Your task to perform on an android device: Look up the best rated bike on Walmart Image 0: 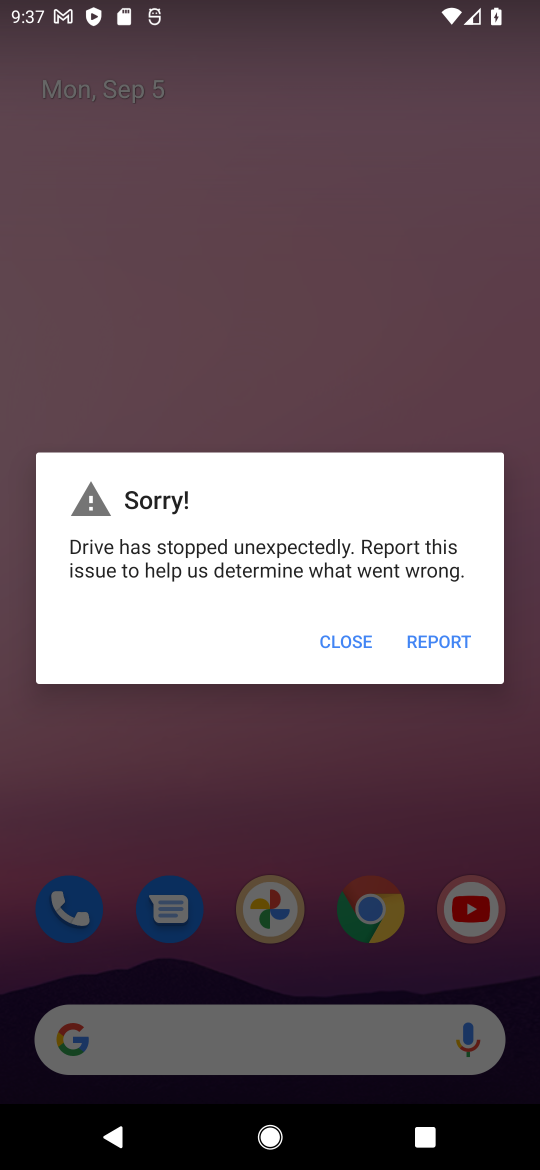
Step 0: click (344, 639)
Your task to perform on an android device: Look up the best rated bike on Walmart Image 1: 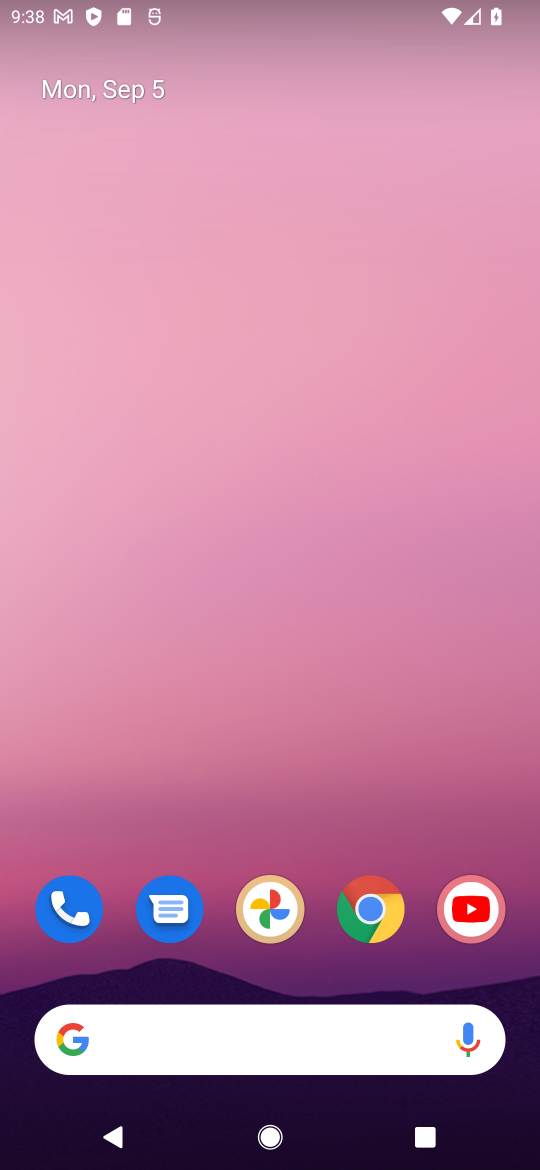
Step 1: click (373, 906)
Your task to perform on an android device: Look up the best rated bike on Walmart Image 2: 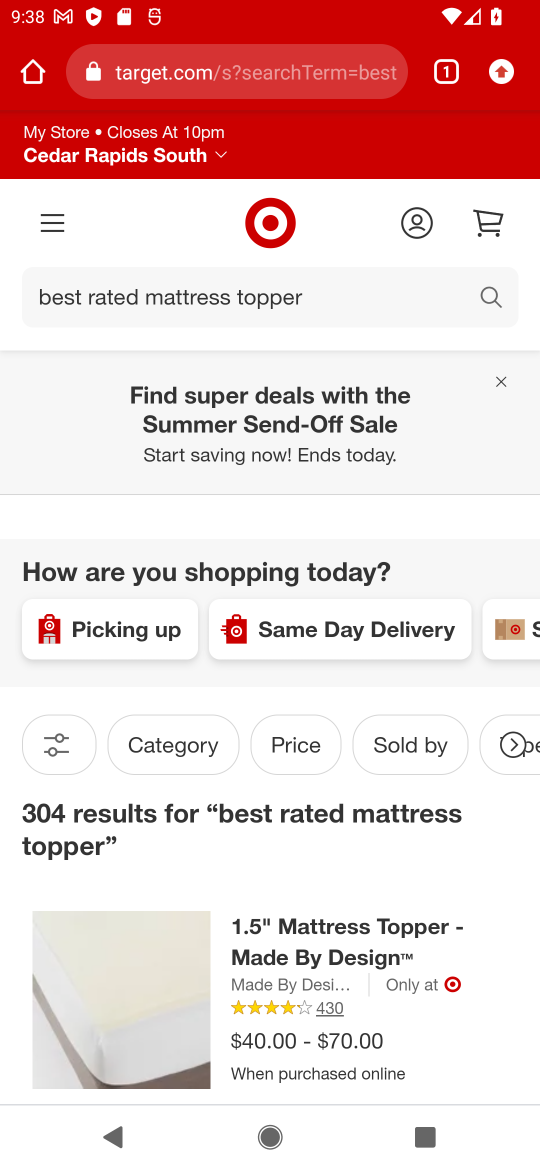
Step 2: click (281, 62)
Your task to perform on an android device: Look up the best rated bike on Walmart Image 3: 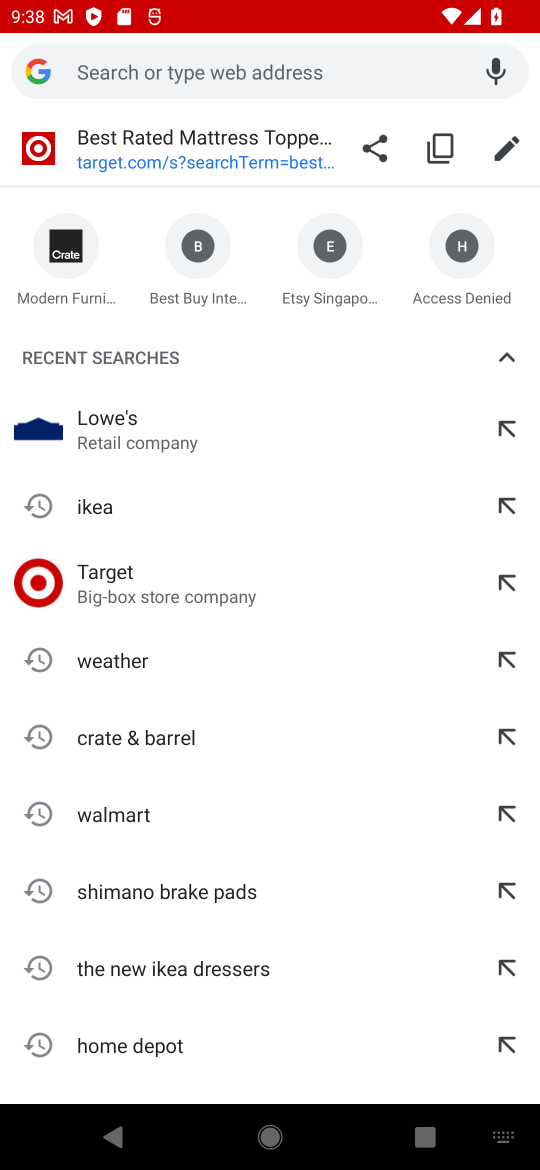
Step 3: type "walmart"
Your task to perform on an android device: Look up the best rated bike on Walmart Image 4: 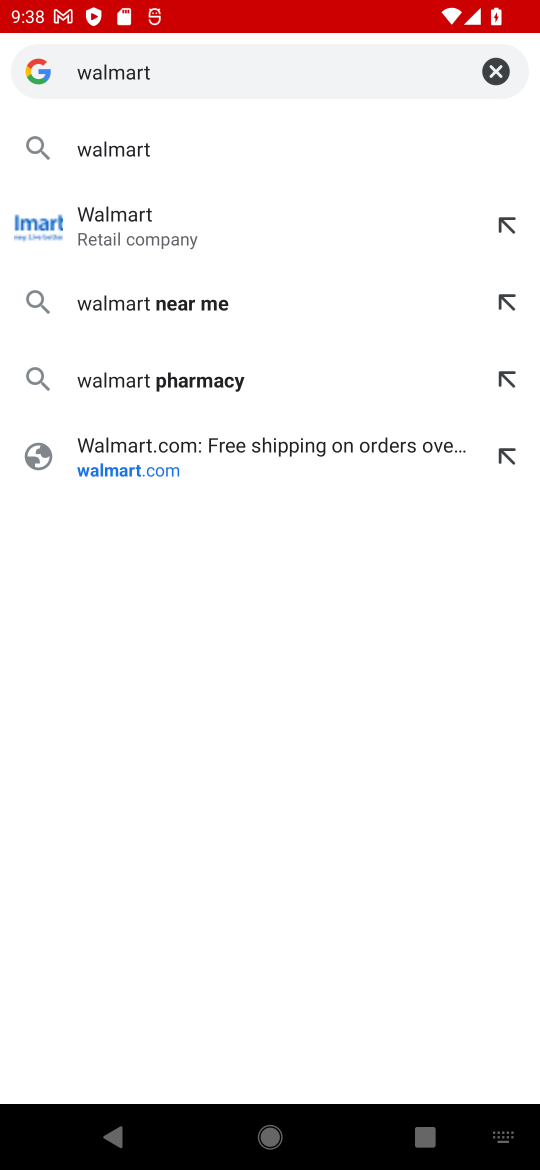
Step 4: click (193, 220)
Your task to perform on an android device: Look up the best rated bike on Walmart Image 5: 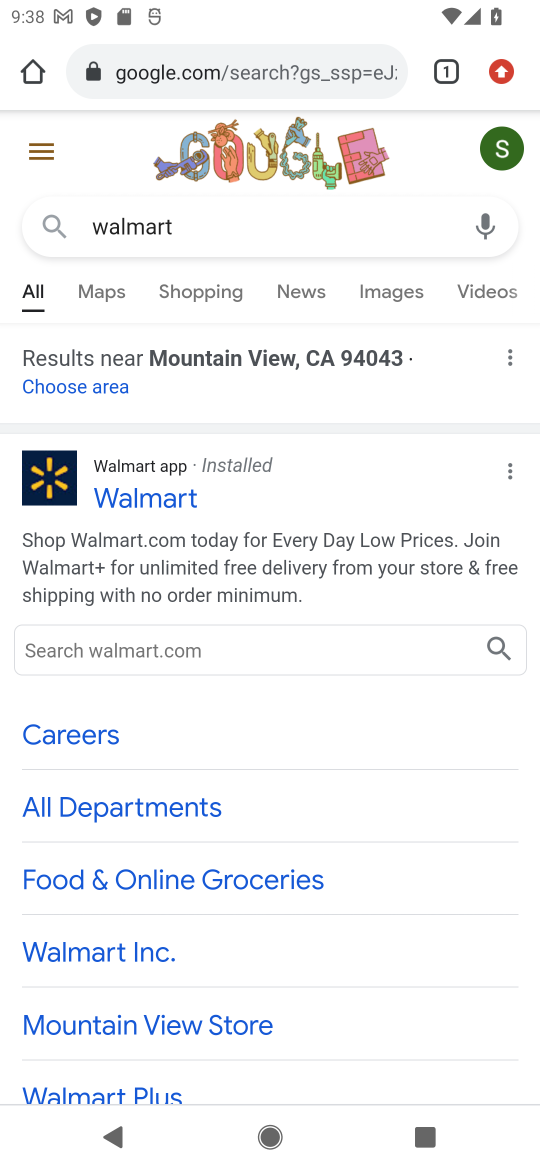
Step 5: drag from (386, 691) to (318, 349)
Your task to perform on an android device: Look up the best rated bike on Walmart Image 6: 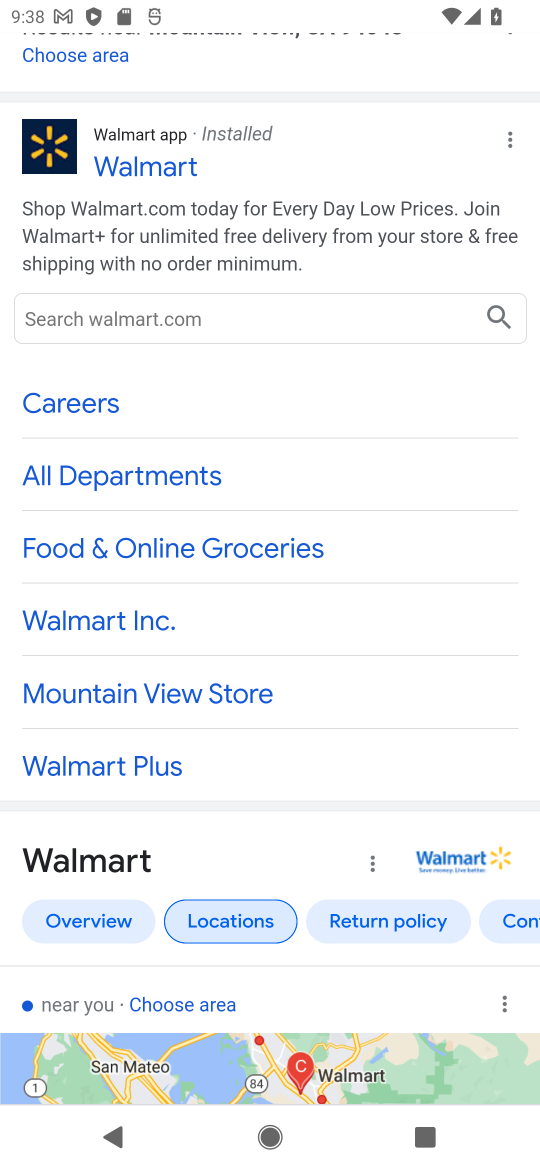
Step 6: drag from (291, 864) to (158, 4)
Your task to perform on an android device: Look up the best rated bike on Walmart Image 7: 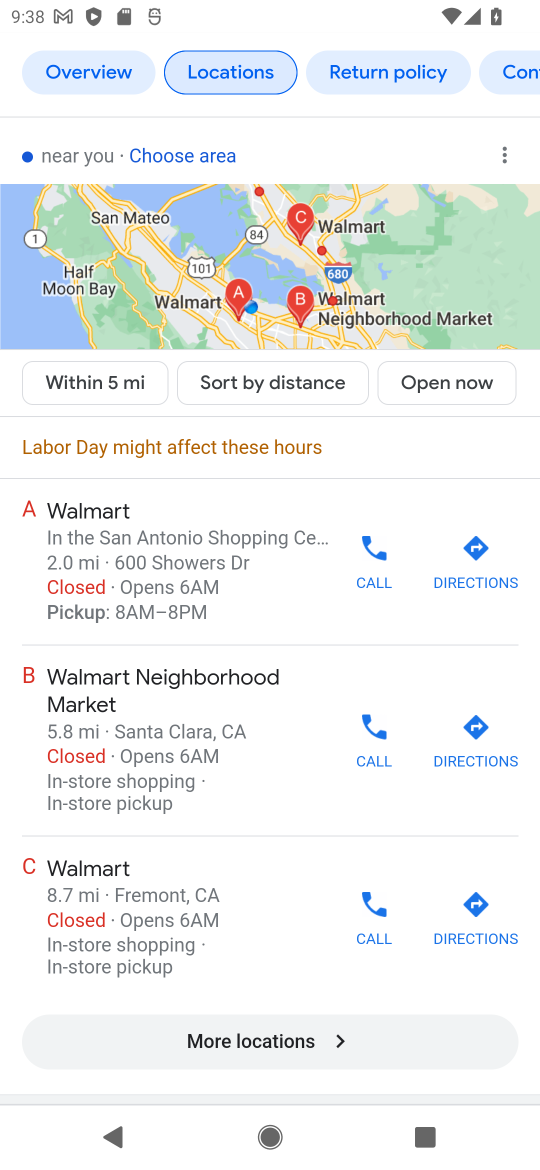
Step 7: drag from (310, 1021) to (189, 95)
Your task to perform on an android device: Look up the best rated bike on Walmart Image 8: 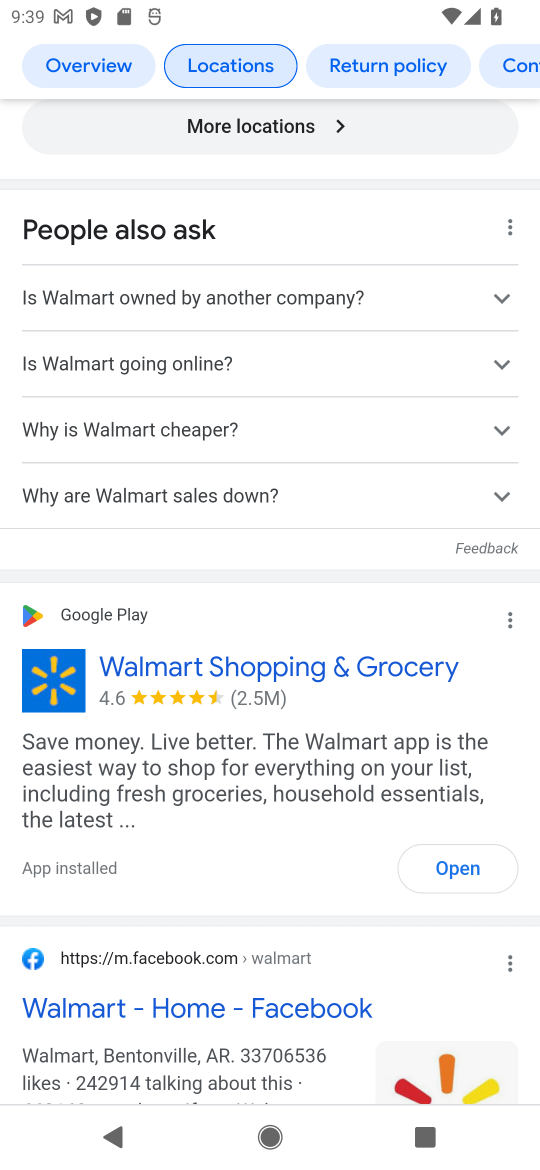
Step 8: drag from (351, 942) to (260, 7)
Your task to perform on an android device: Look up the best rated bike on Walmart Image 9: 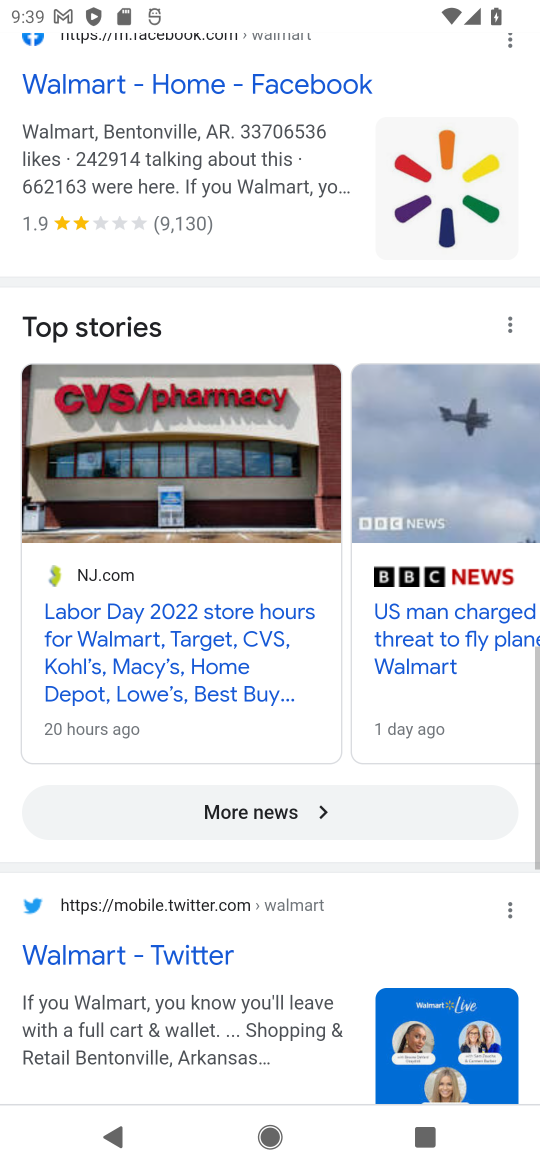
Step 9: drag from (401, 895) to (335, 279)
Your task to perform on an android device: Look up the best rated bike on Walmart Image 10: 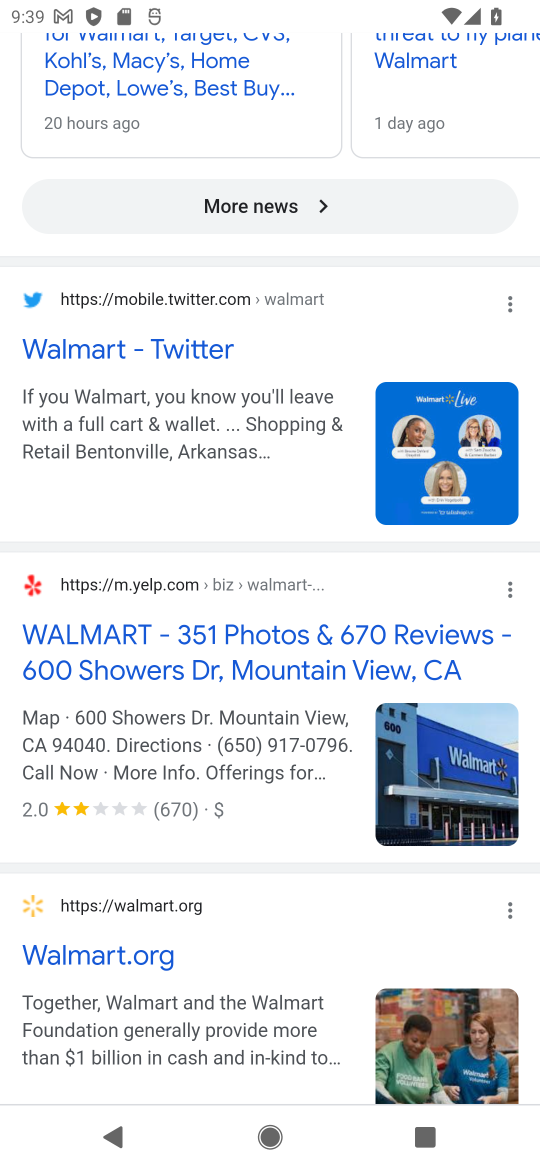
Step 10: click (132, 950)
Your task to perform on an android device: Look up the best rated bike on Walmart Image 11: 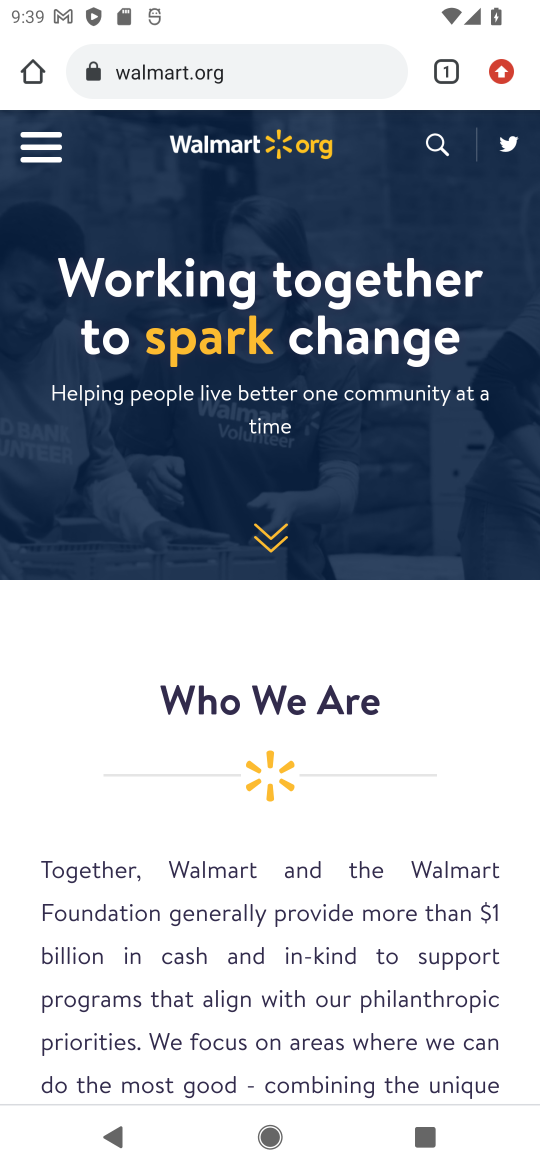
Step 11: click (440, 149)
Your task to perform on an android device: Look up the best rated bike on Walmart Image 12: 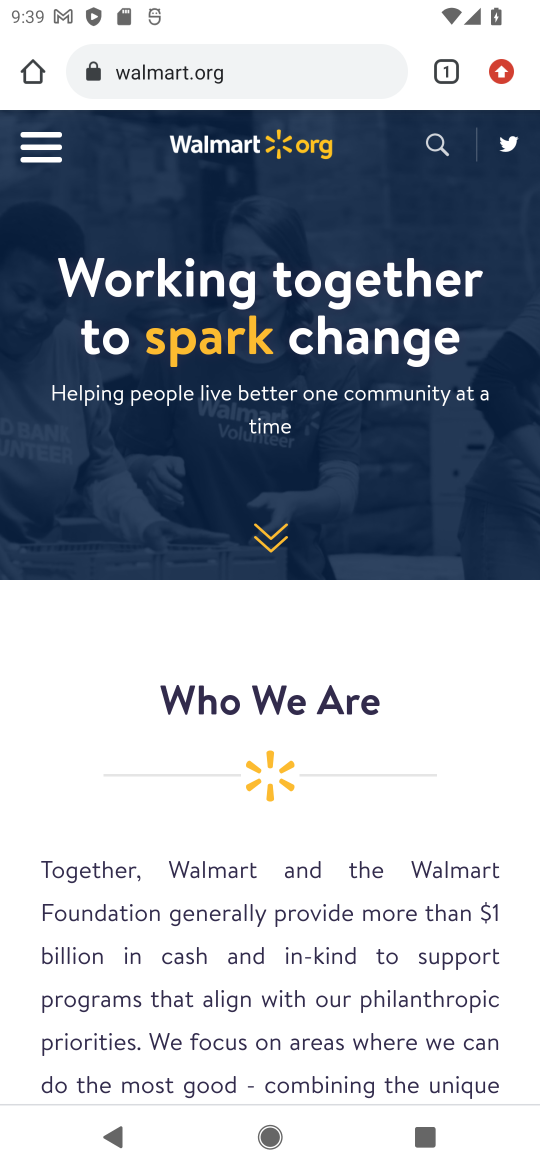
Step 12: click (438, 147)
Your task to perform on an android device: Look up the best rated bike on Walmart Image 13: 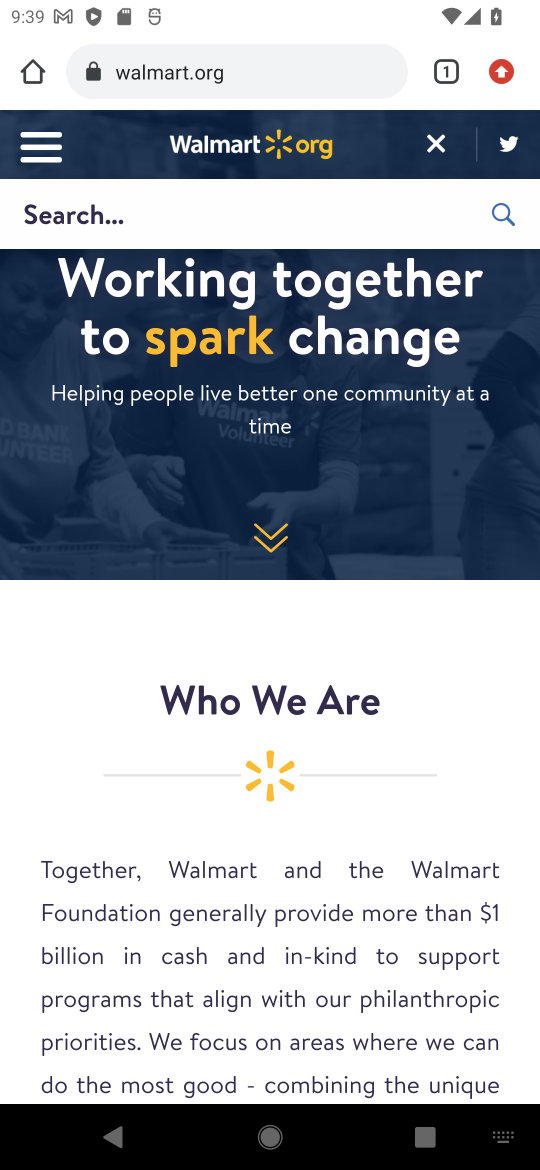
Step 13: click (357, 217)
Your task to perform on an android device: Look up the best rated bike on Walmart Image 14: 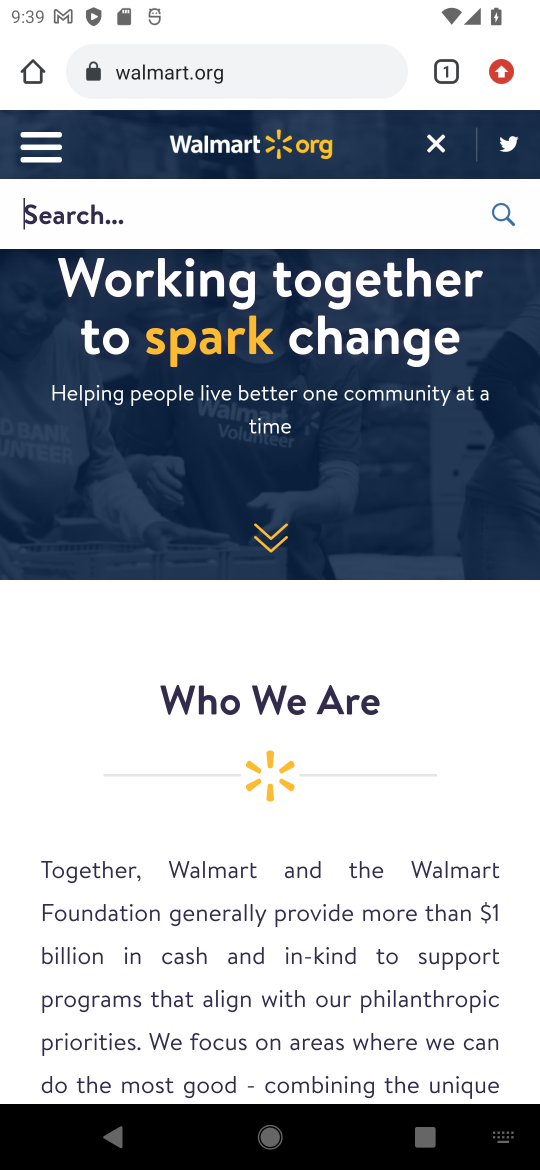
Step 14: type "best rated bike"
Your task to perform on an android device: Look up the best rated bike on Walmart Image 15: 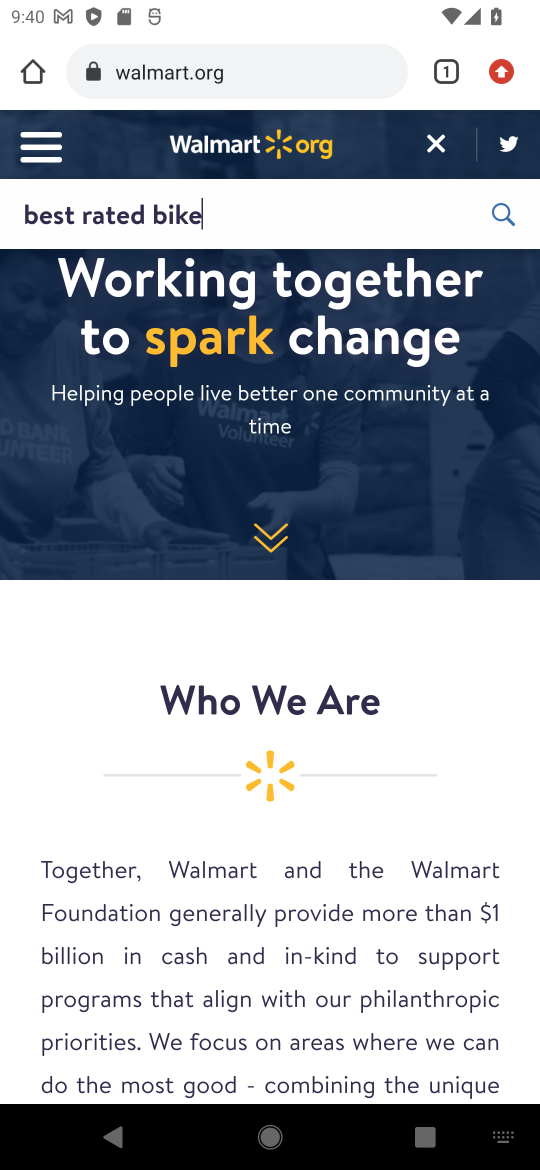
Step 15: click (517, 211)
Your task to perform on an android device: Look up the best rated bike on Walmart Image 16: 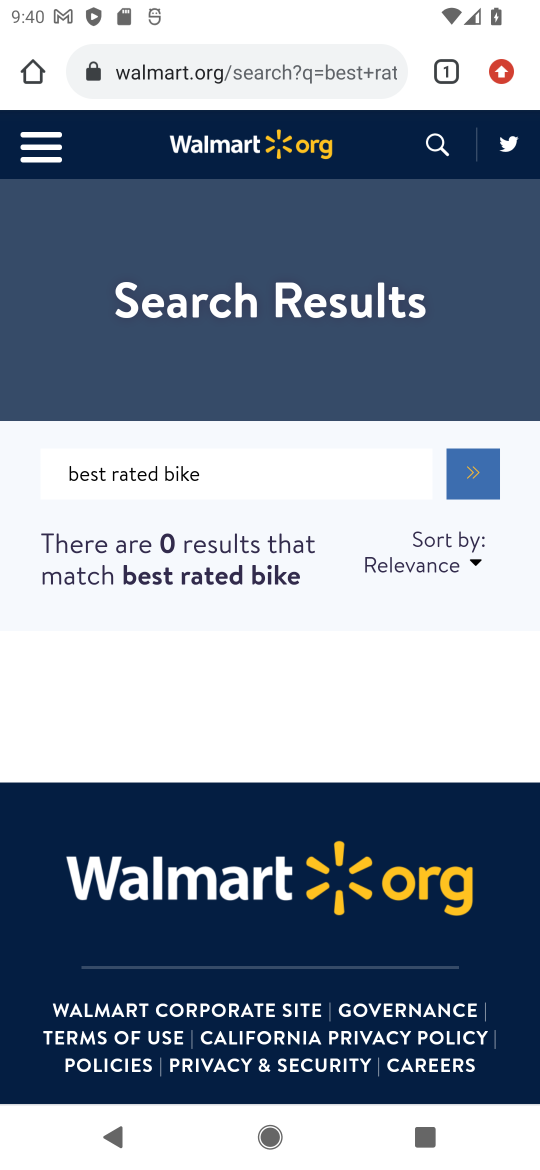
Step 16: task complete